Your task to perform on an android device: Search for logitech g pro on amazon.com, select the first entry, add it to the cart, then select checkout. Image 0: 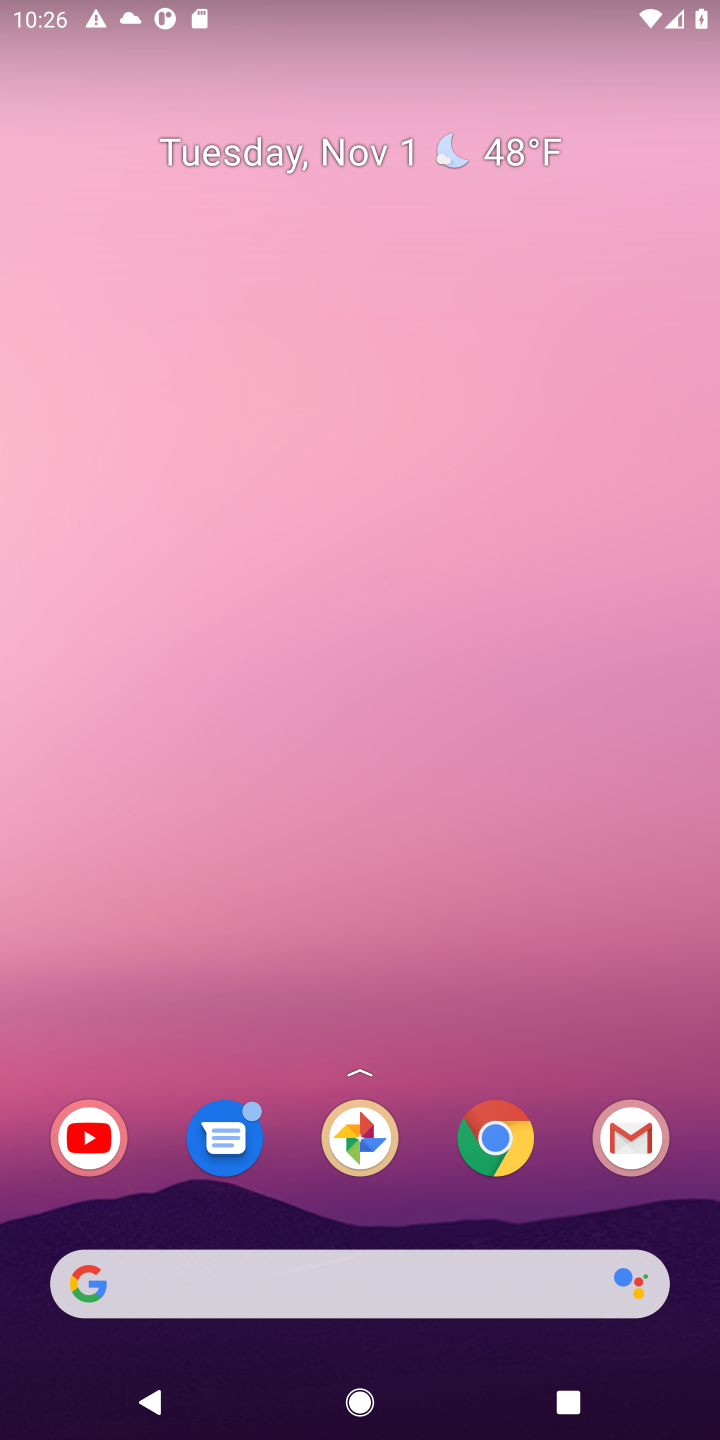
Step 0: drag from (412, 326) to (416, 32)
Your task to perform on an android device: Search for logitech g pro on amazon.com, select the first entry, add it to the cart, then select checkout. Image 1: 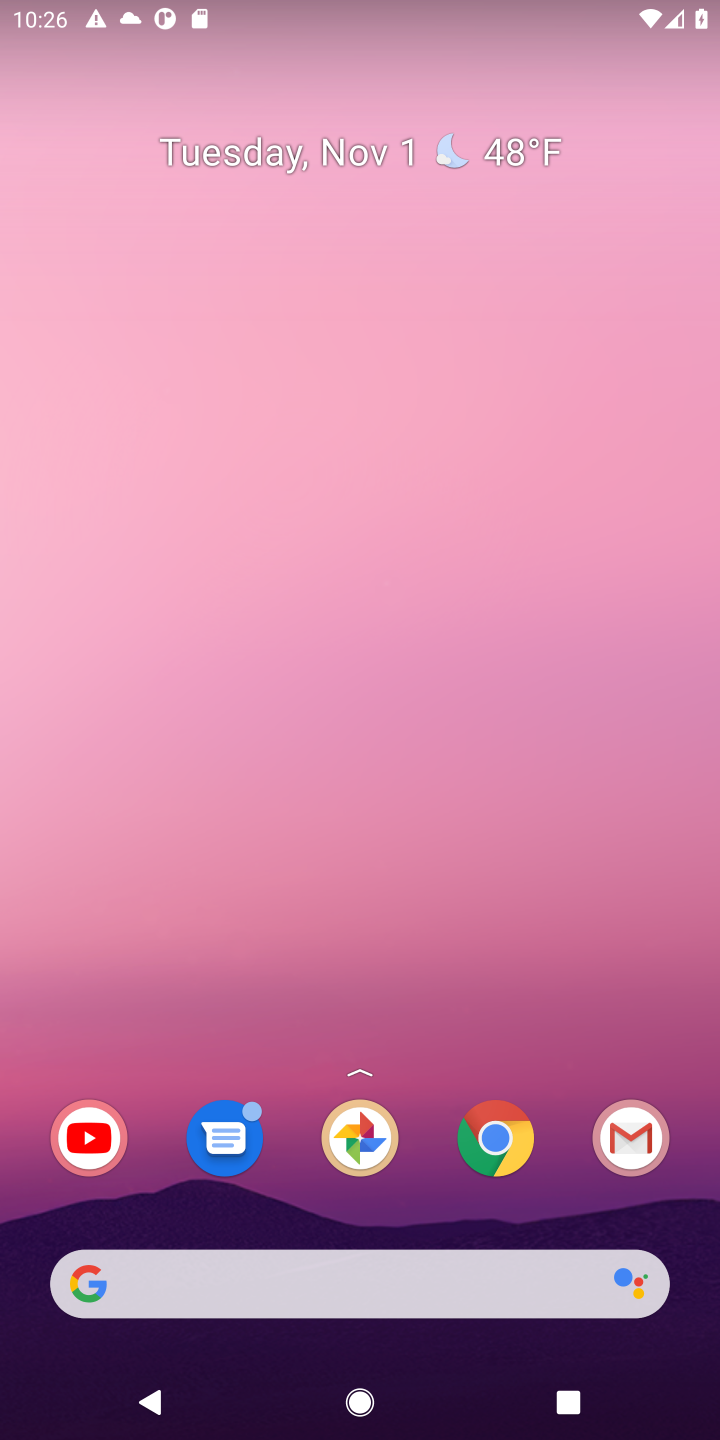
Step 1: drag from (420, 1075) to (409, 168)
Your task to perform on an android device: Search for logitech g pro on amazon.com, select the first entry, add it to the cart, then select checkout. Image 2: 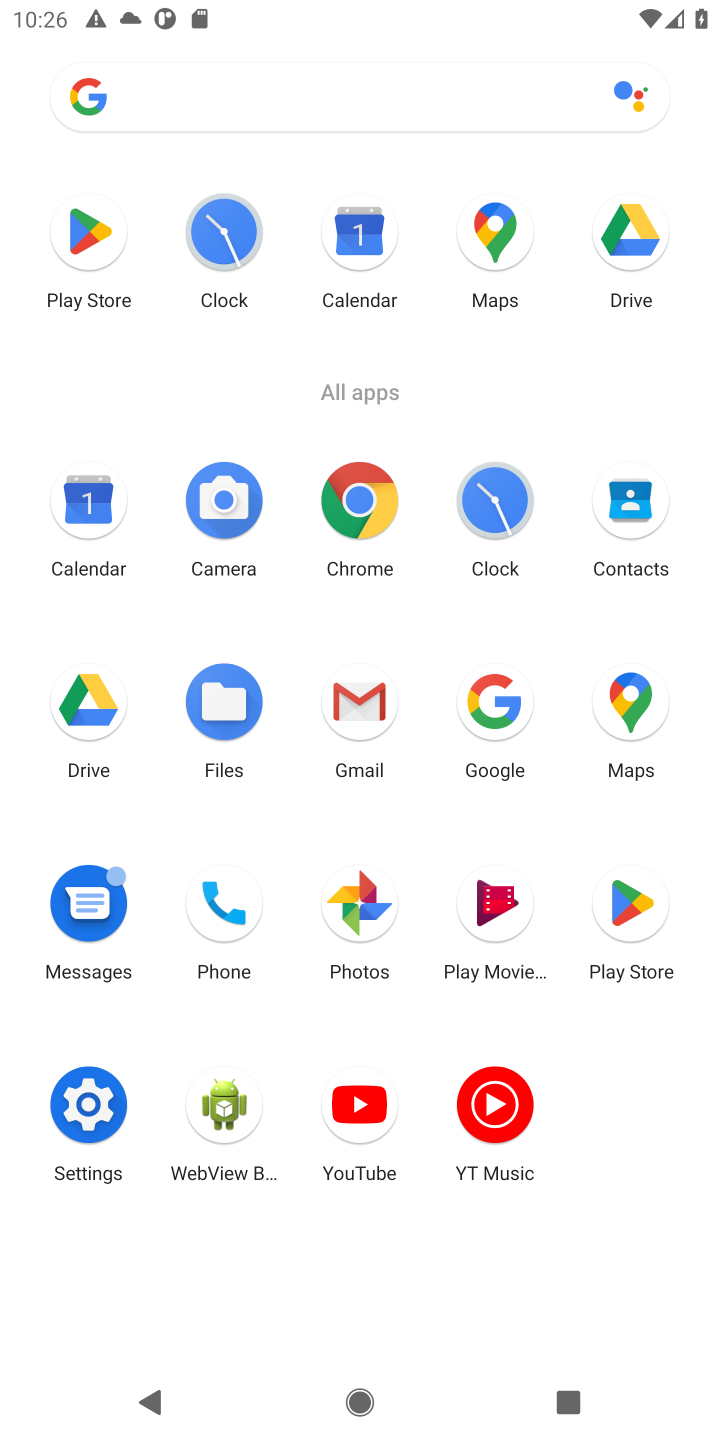
Step 2: click (363, 493)
Your task to perform on an android device: Search for logitech g pro on amazon.com, select the first entry, add it to the cart, then select checkout. Image 3: 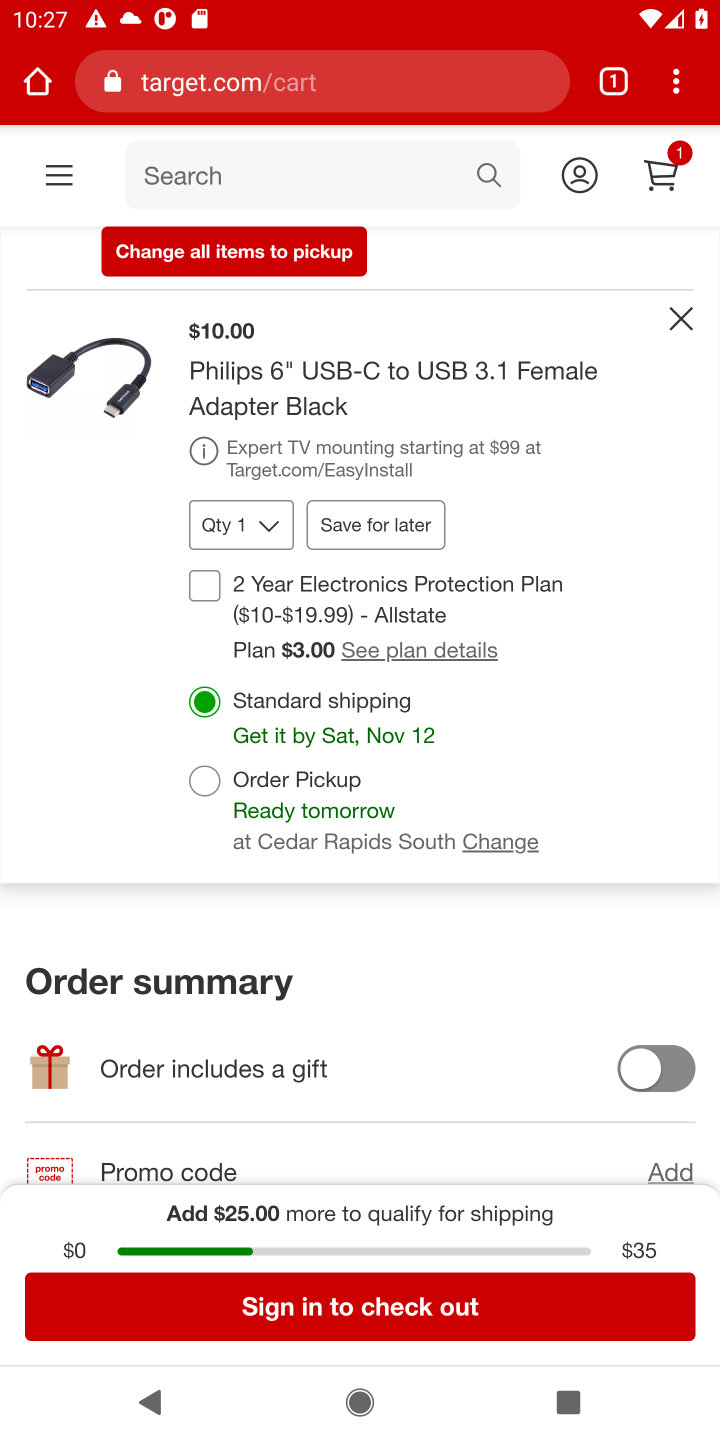
Step 3: click (239, 72)
Your task to perform on an android device: Search for logitech g pro on amazon.com, select the first entry, add it to the cart, then select checkout. Image 4: 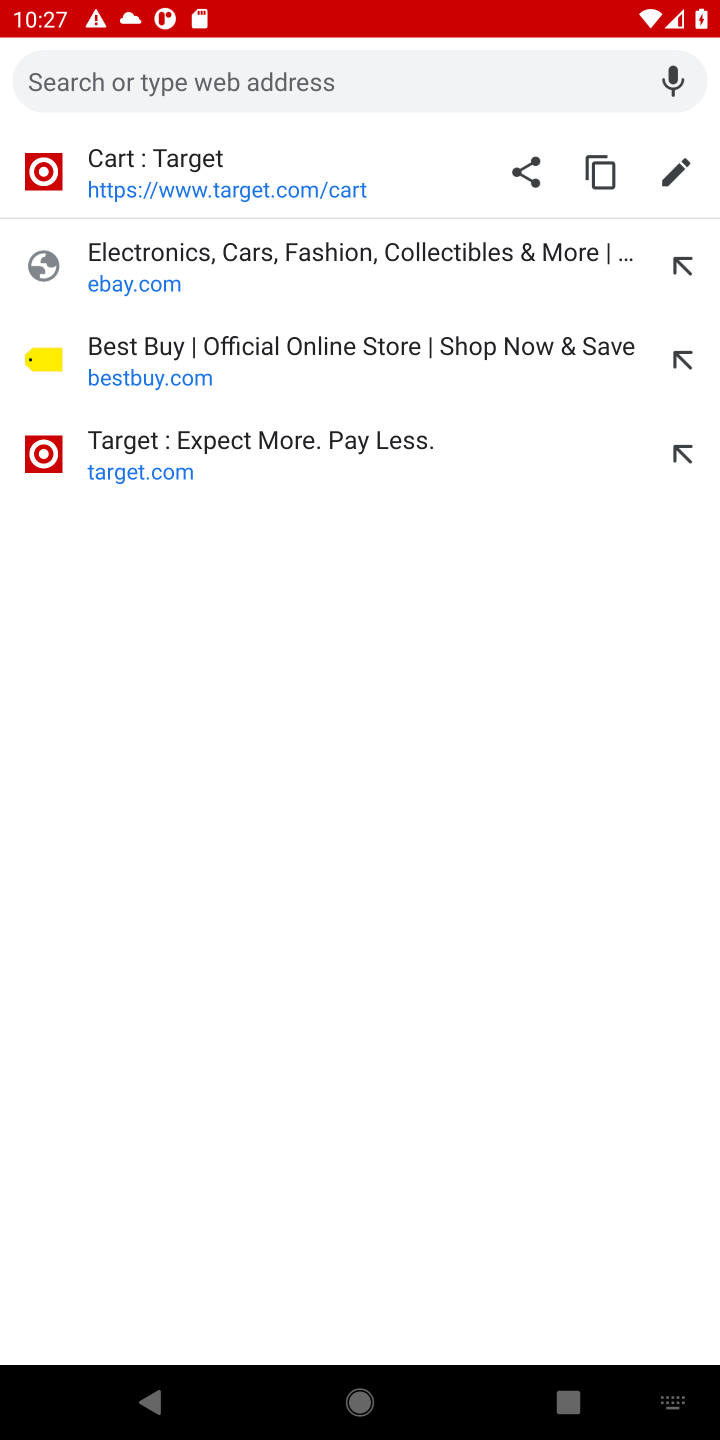
Step 4: type "amazon"
Your task to perform on an android device: Search for logitech g pro on amazon.com, select the first entry, add it to the cart, then select checkout. Image 5: 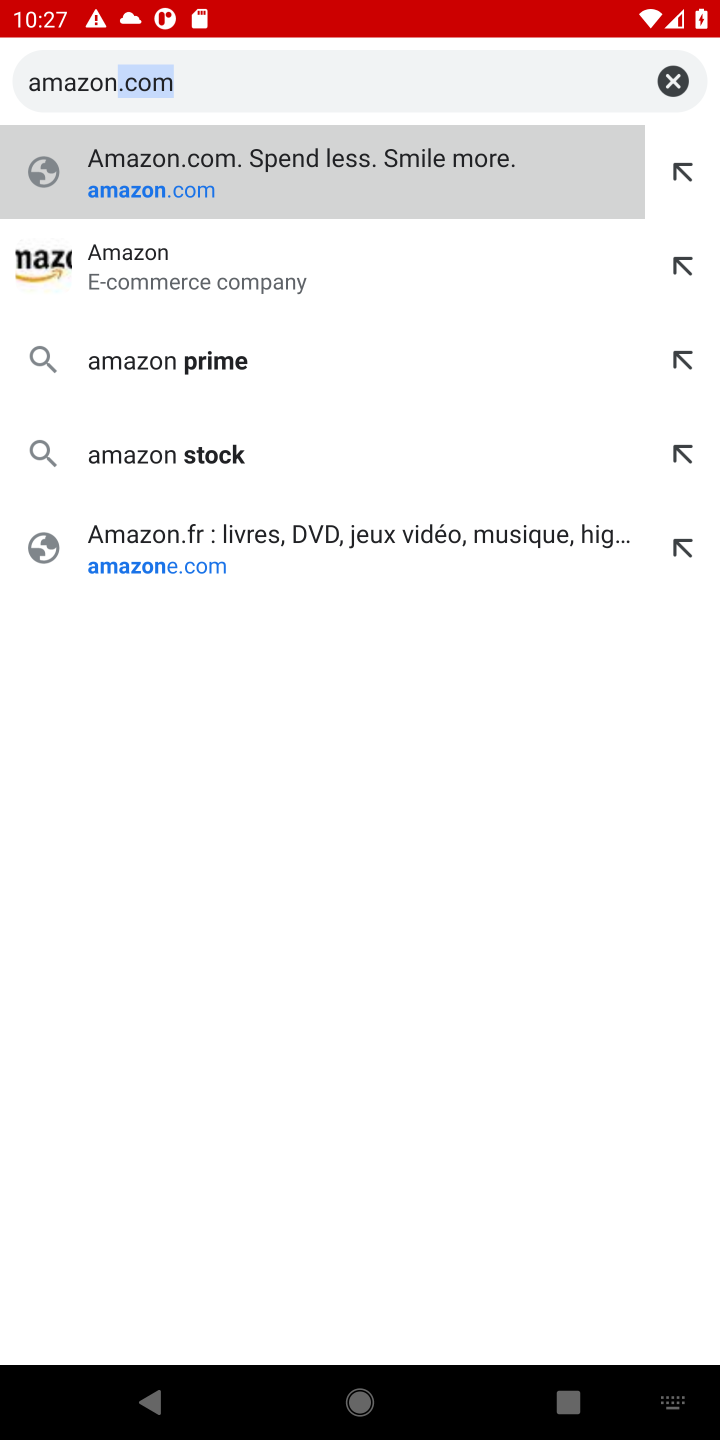
Step 5: click (168, 185)
Your task to perform on an android device: Search for logitech g pro on amazon.com, select the first entry, add it to the cart, then select checkout. Image 6: 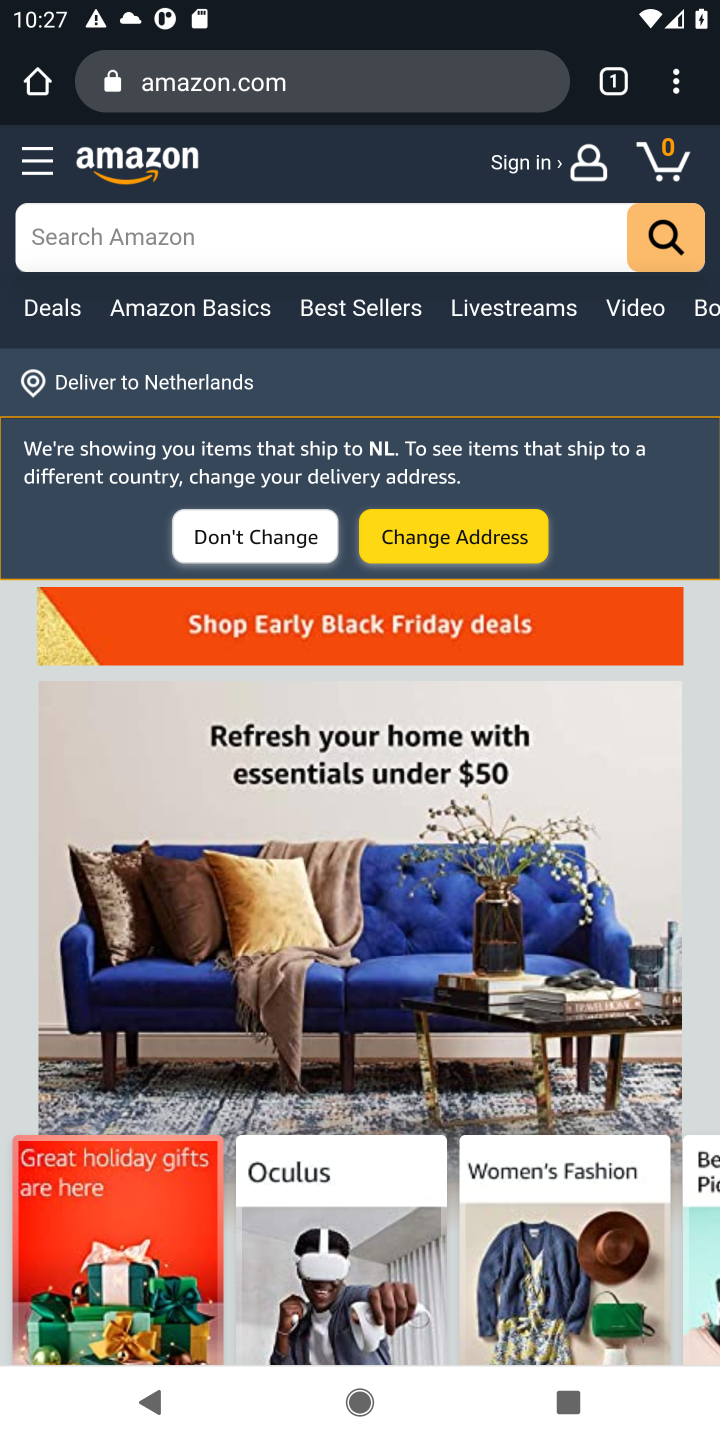
Step 6: click (185, 242)
Your task to perform on an android device: Search for logitech g pro on amazon.com, select the first entry, add it to the cart, then select checkout. Image 7: 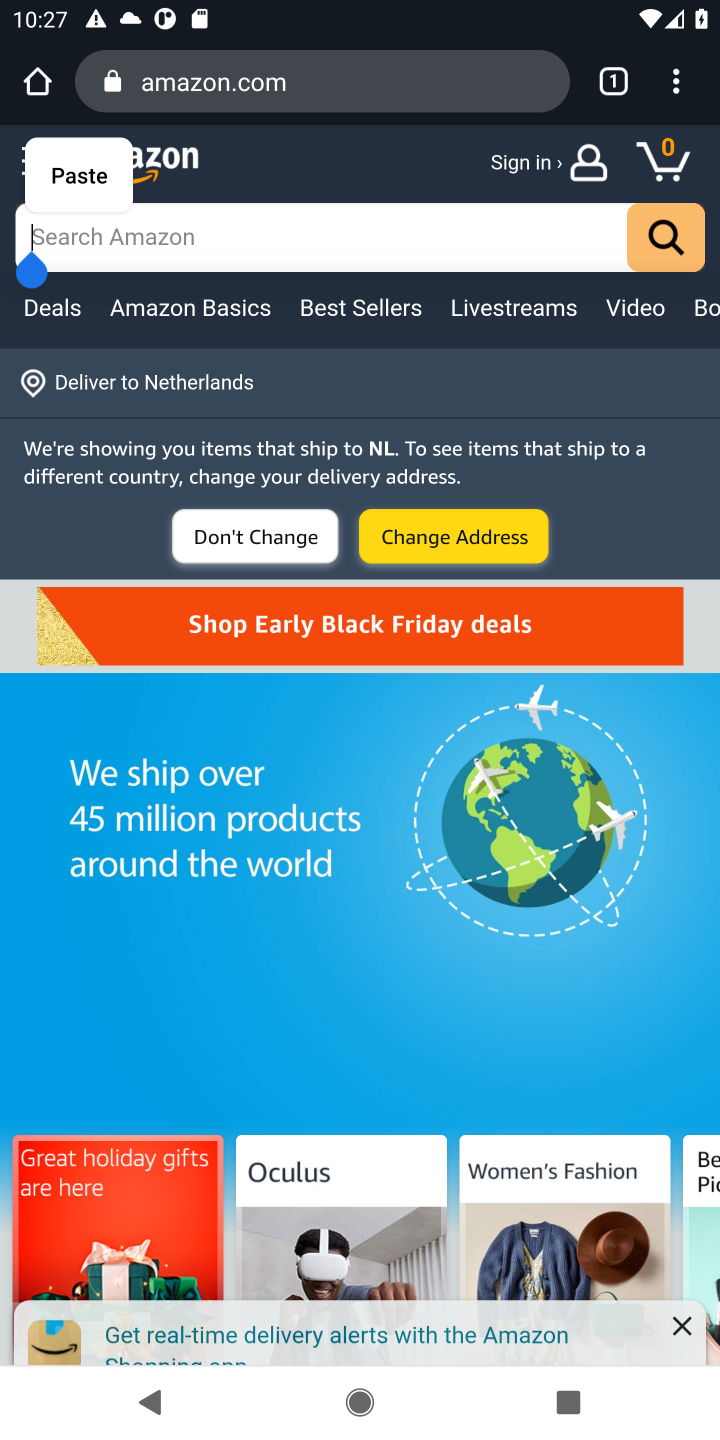
Step 7: type "logitech g pro"
Your task to perform on an android device: Search for logitech g pro on amazon.com, select the first entry, add it to the cart, then select checkout. Image 8: 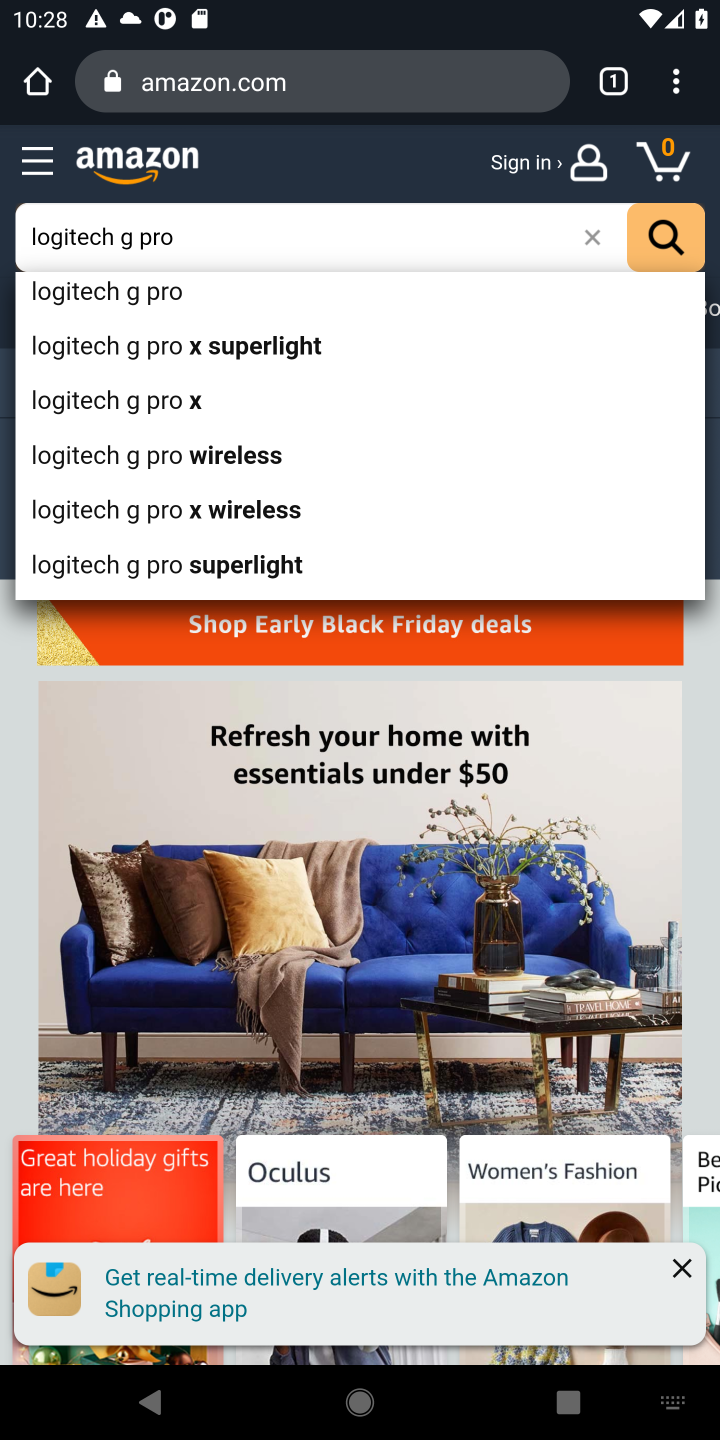
Step 8: click (192, 293)
Your task to perform on an android device: Search for logitech g pro on amazon.com, select the first entry, add it to the cart, then select checkout. Image 9: 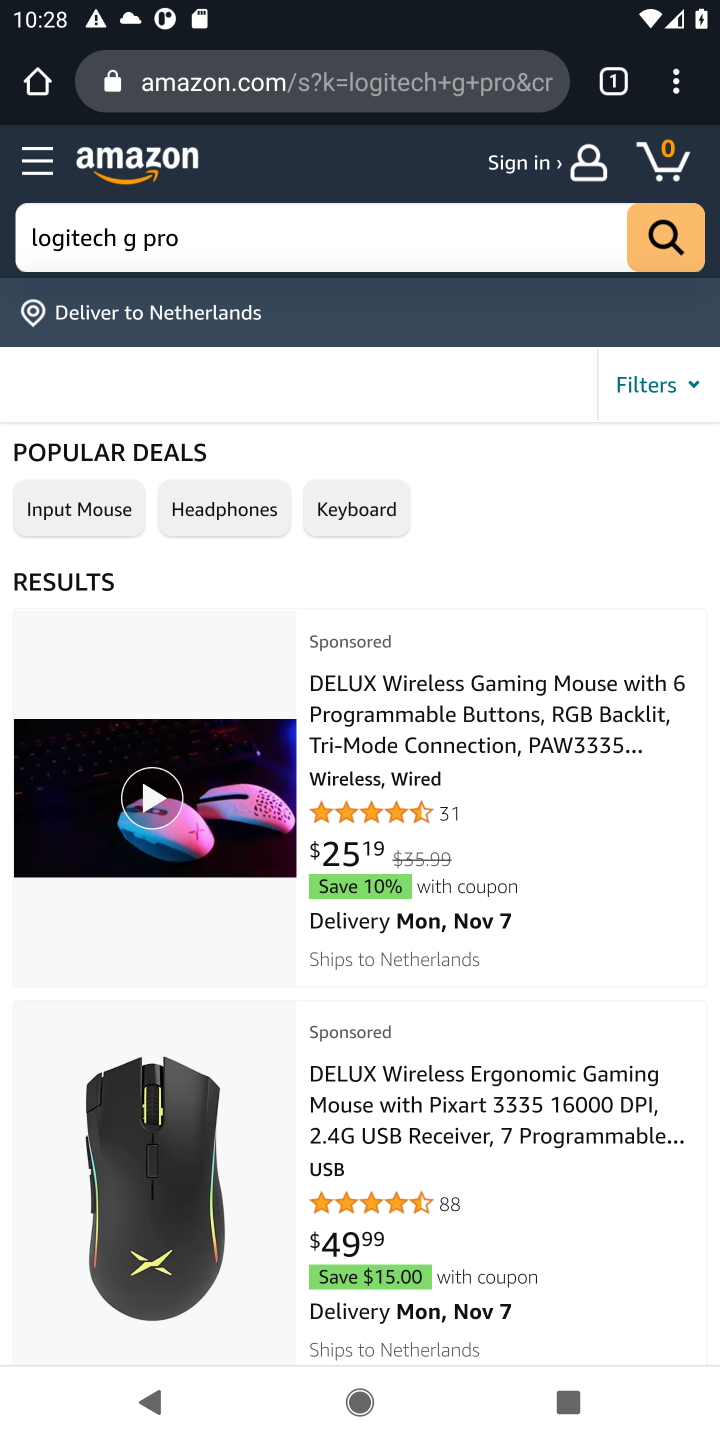
Step 9: drag from (467, 1042) to (503, 363)
Your task to perform on an android device: Search for logitech g pro on amazon.com, select the first entry, add it to the cart, then select checkout. Image 10: 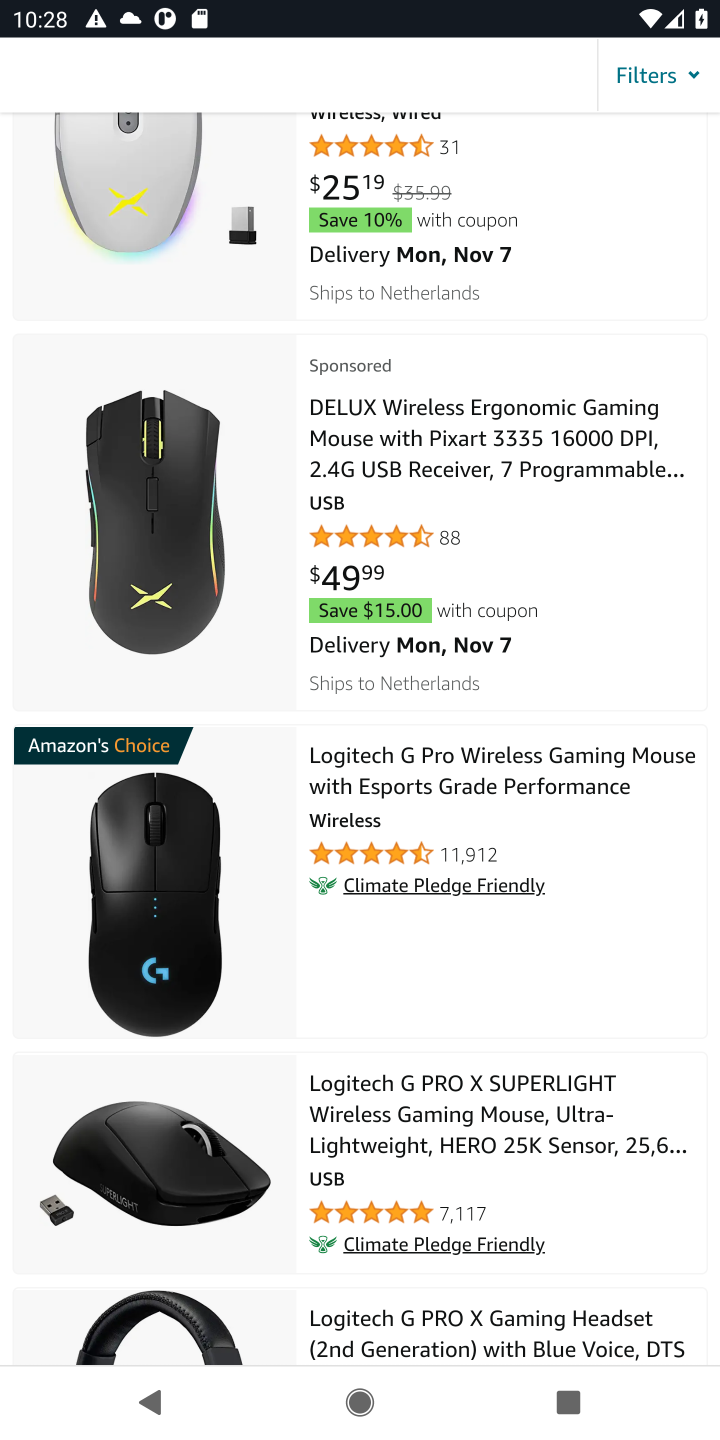
Step 10: click (452, 763)
Your task to perform on an android device: Search for logitech g pro on amazon.com, select the first entry, add it to the cart, then select checkout. Image 11: 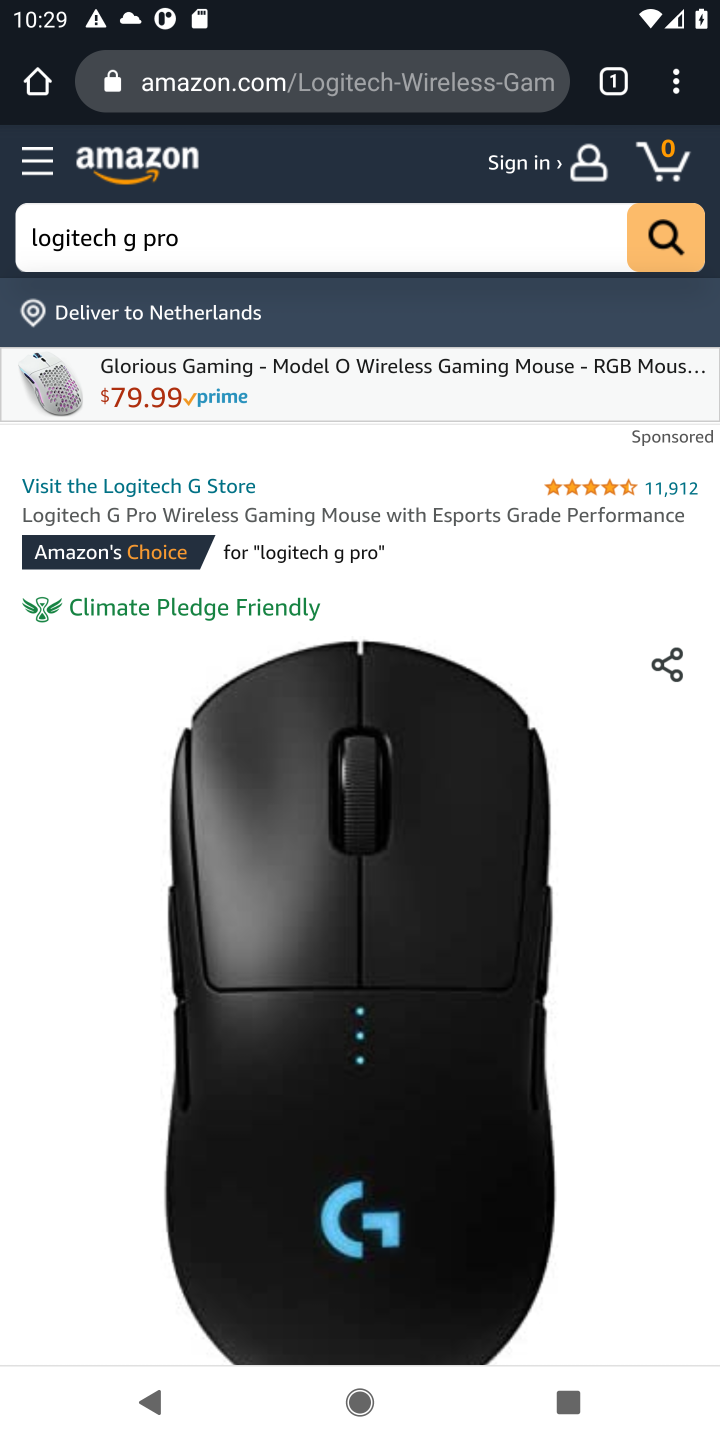
Step 11: drag from (591, 1203) to (544, 230)
Your task to perform on an android device: Search for logitech g pro on amazon.com, select the first entry, add it to the cart, then select checkout. Image 12: 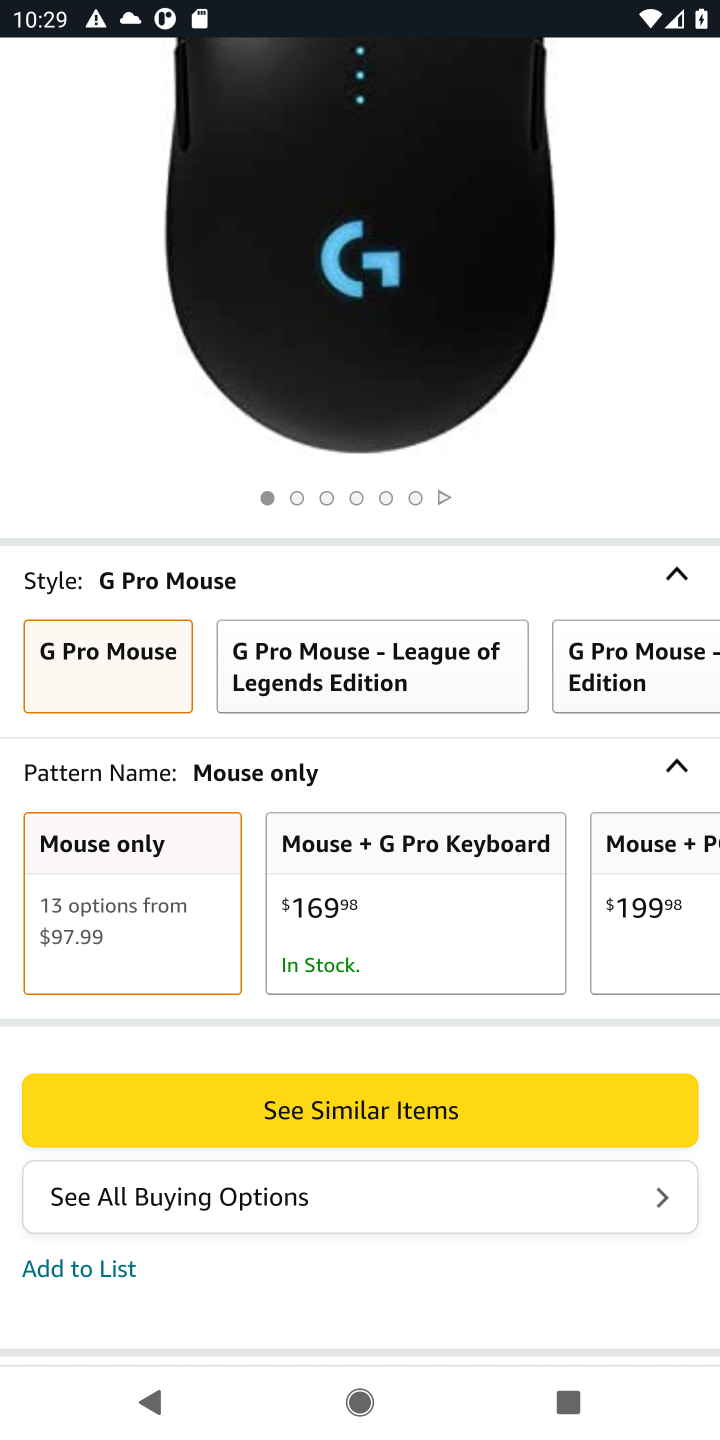
Step 12: click (356, 1116)
Your task to perform on an android device: Search for logitech g pro on amazon.com, select the first entry, add it to the cart, then select checkout. Image 13: 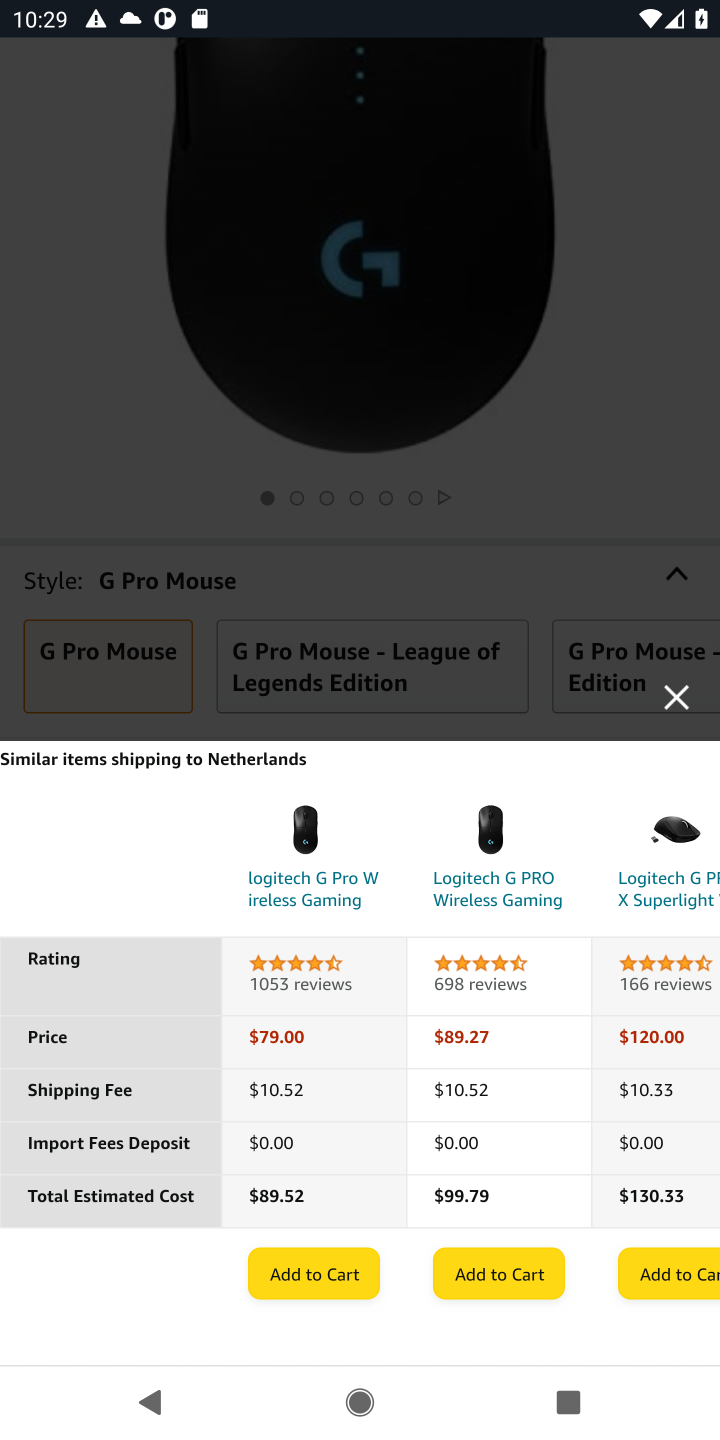
Step 13: click (325, 1287)
Your task to perform on an android device: Search for logitech g pro on amazon.com, select the first entry, add it to the cart, then select checkout. Image 14: 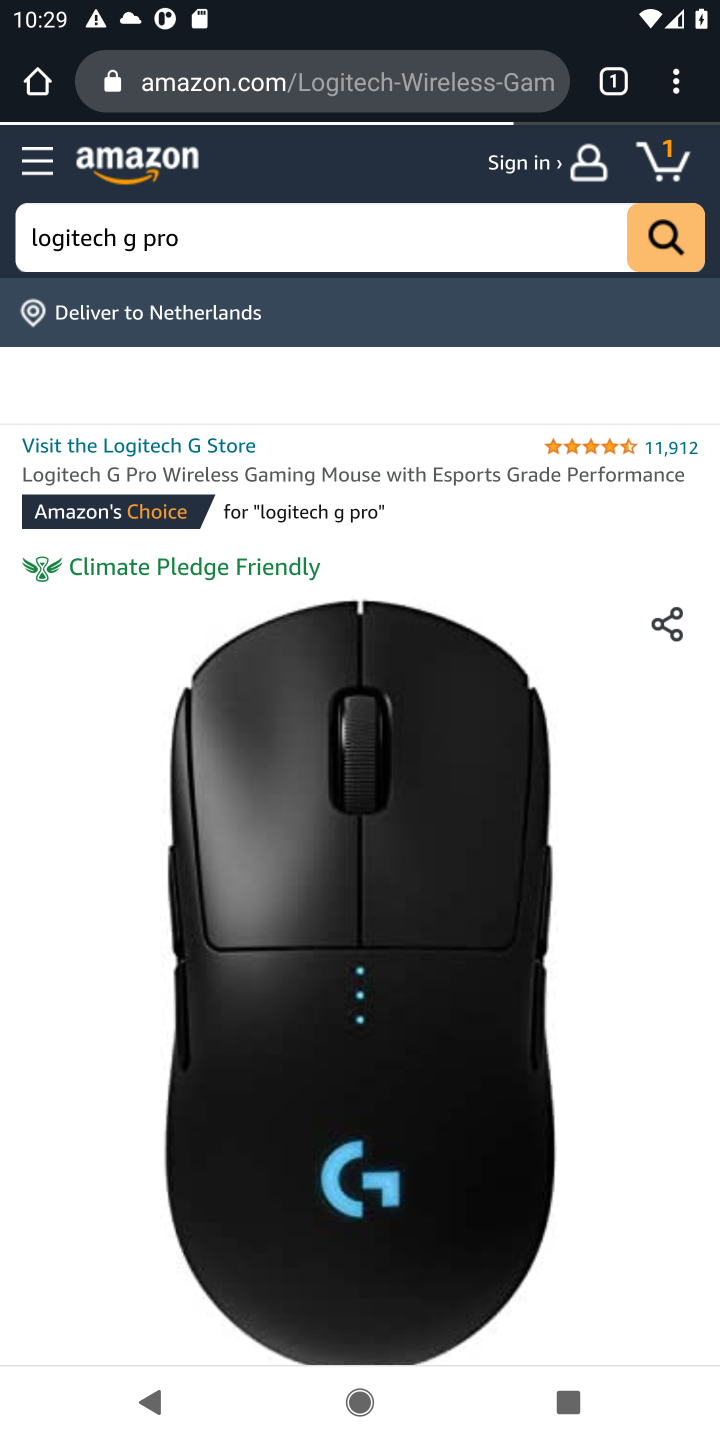
Step 14: drag from (625, 1262) to (590, 290)
Your task to perform on an android device: Search for logitech g pro on amazon.com, select the first entry, add it to the cart, then select checkout. Image 15: 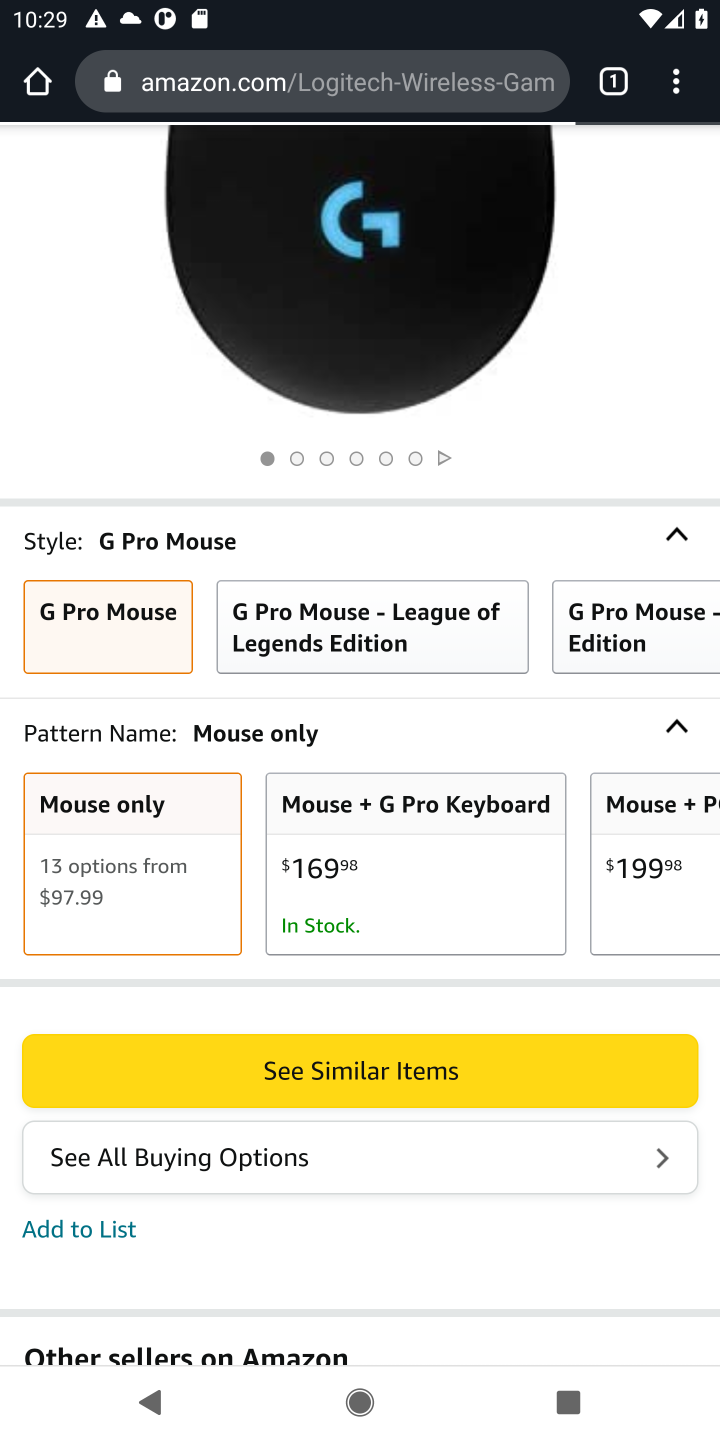
Step 15: drag from (573, 334) to (575, 1256)
Your task to perform on an android device: Search for logitech g pro on amazon.com, select the first entry, add it to the cart, then select checkout. Image 16: 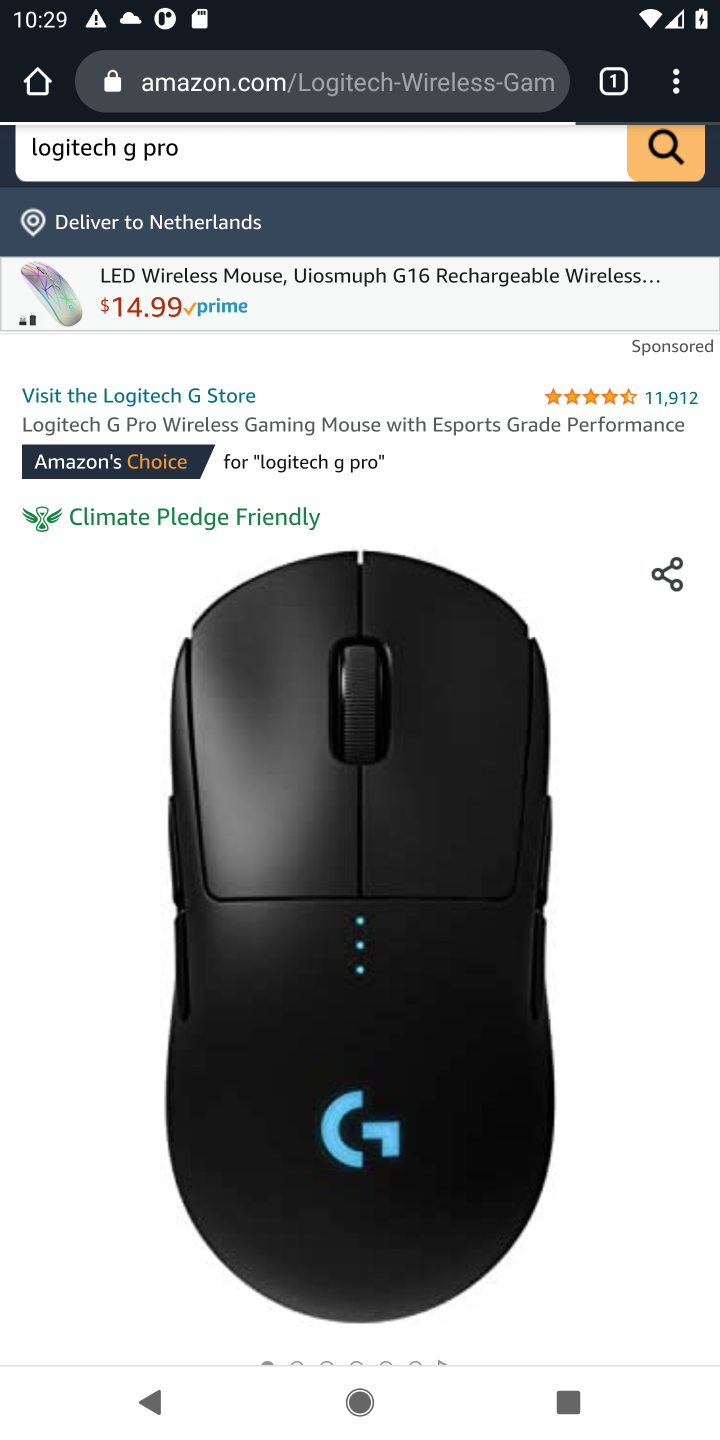
Step 16: drag from (607, 211) to (597, 1243)
Your task to perform on an android device: Search for logitech g pro on amazon.com, select the first entry, add it to the cart, then select checkout. Image 17: 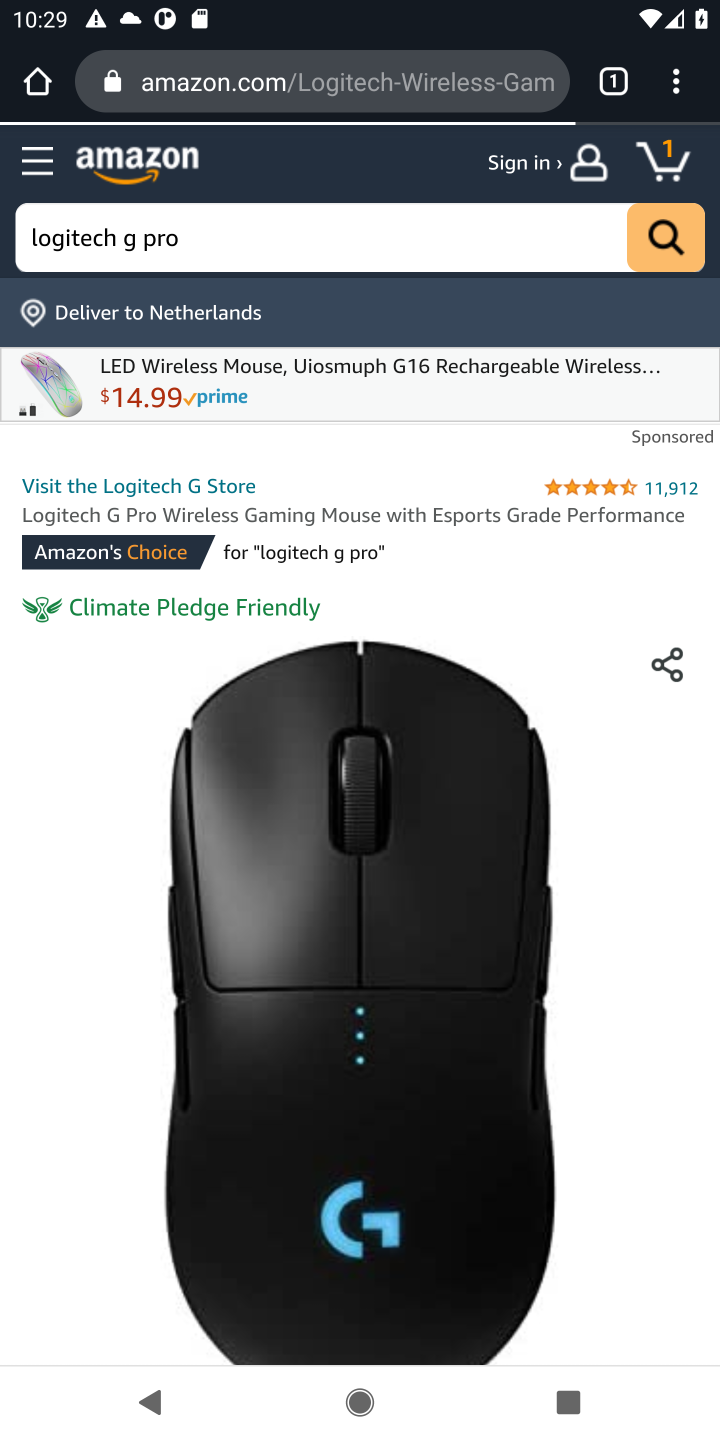
Step 17: click (649, 149)
Your task to perform on an android device: Search for logitech g pro on amazon.com, select the first entry, add it to the cart, then select checkout. Image 18: 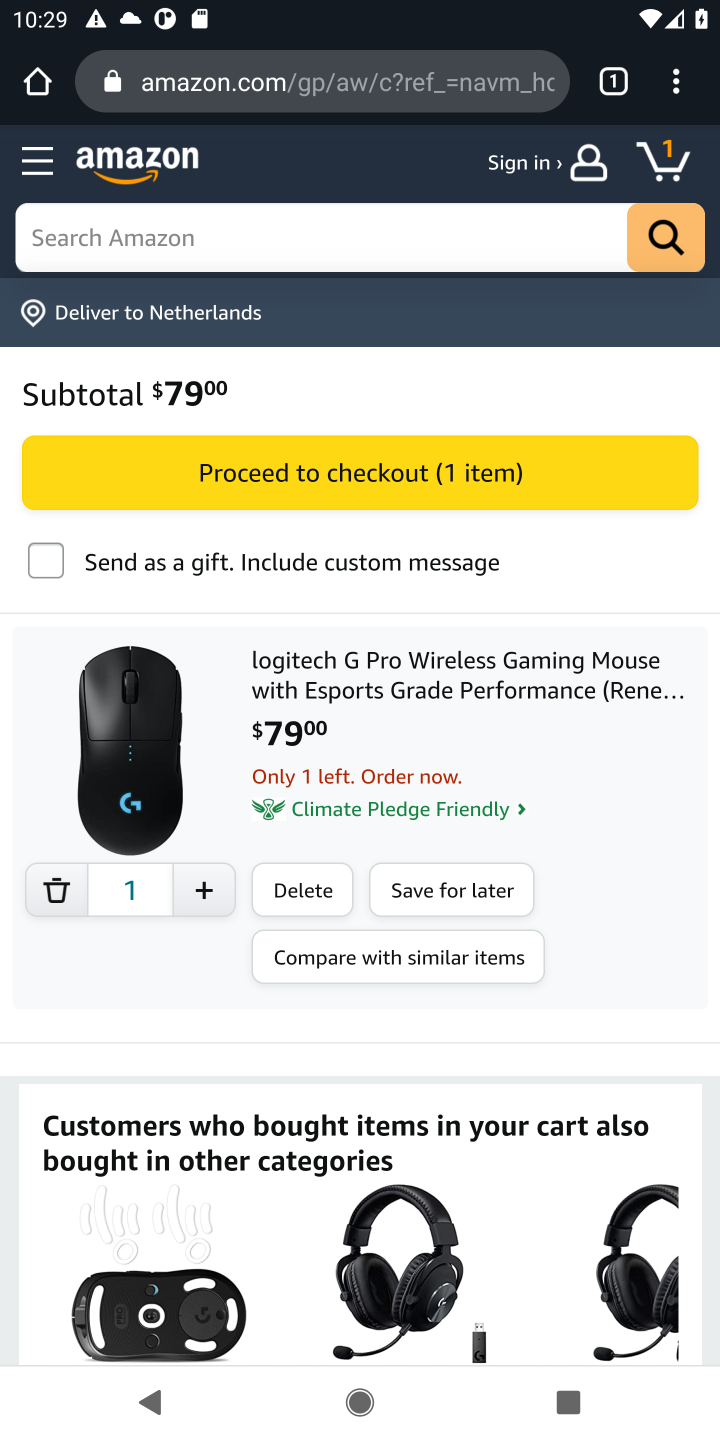
Step 18: click (389, 482)
Your task to perform on an android device: Search for logitech g pro on amazon.com, select the first entry, add it to the cart, then select checkout. Image 19: 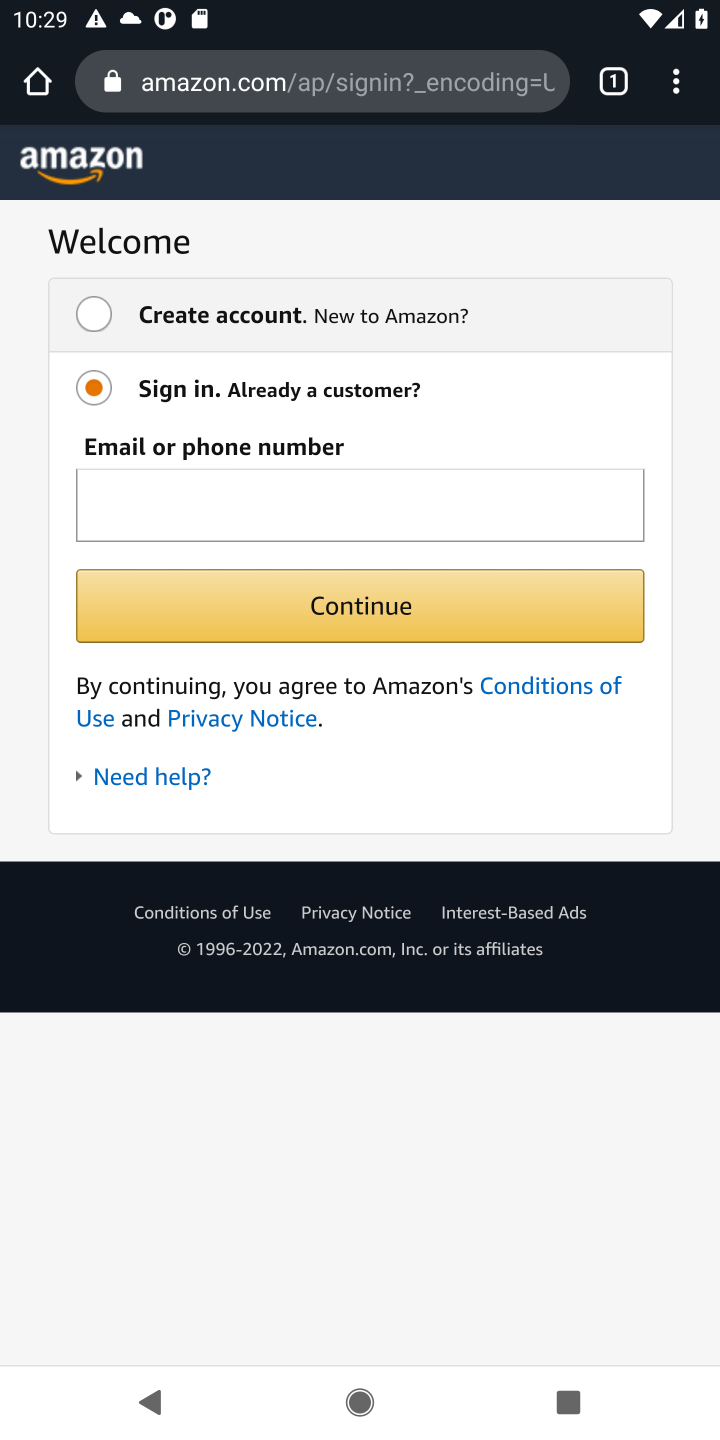
Step 19: task complete